Your task to perform on an android device: Show me the alarms in the clock app Image 0: 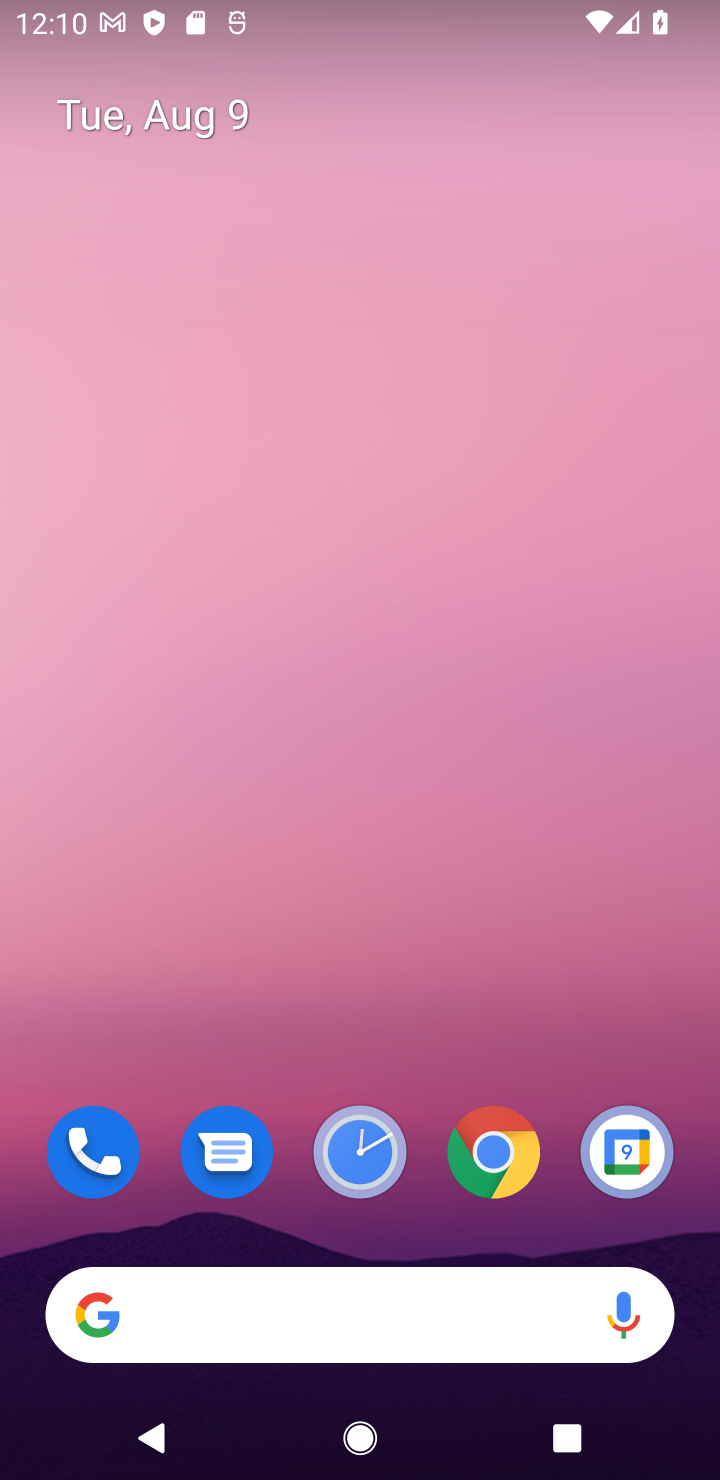
Step 0: click (375, 1136)
Your task to perform on an android device: Show me the alarms in the clock app Image 1: 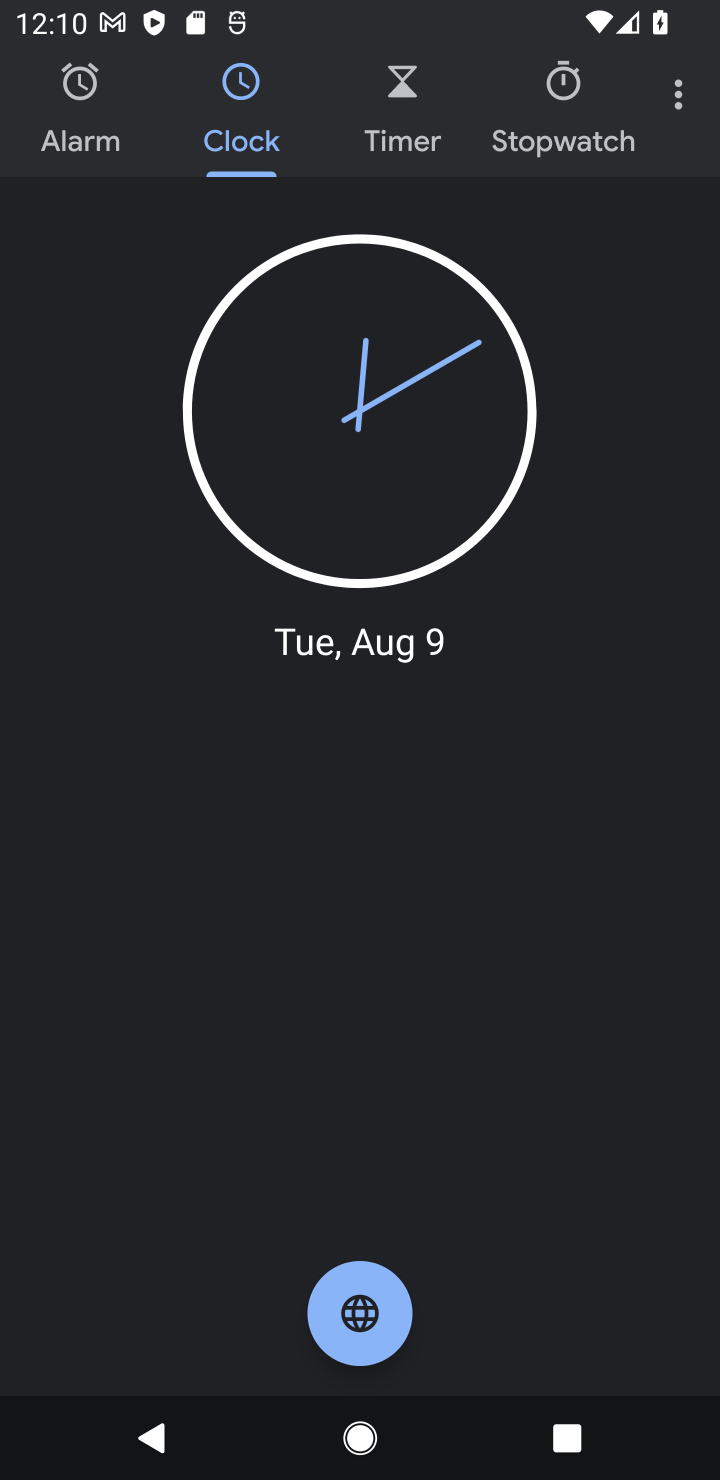
Step 1: click (51, 130)
Your task to perform on an android device: Show me the alarms in the clock app Image 2: 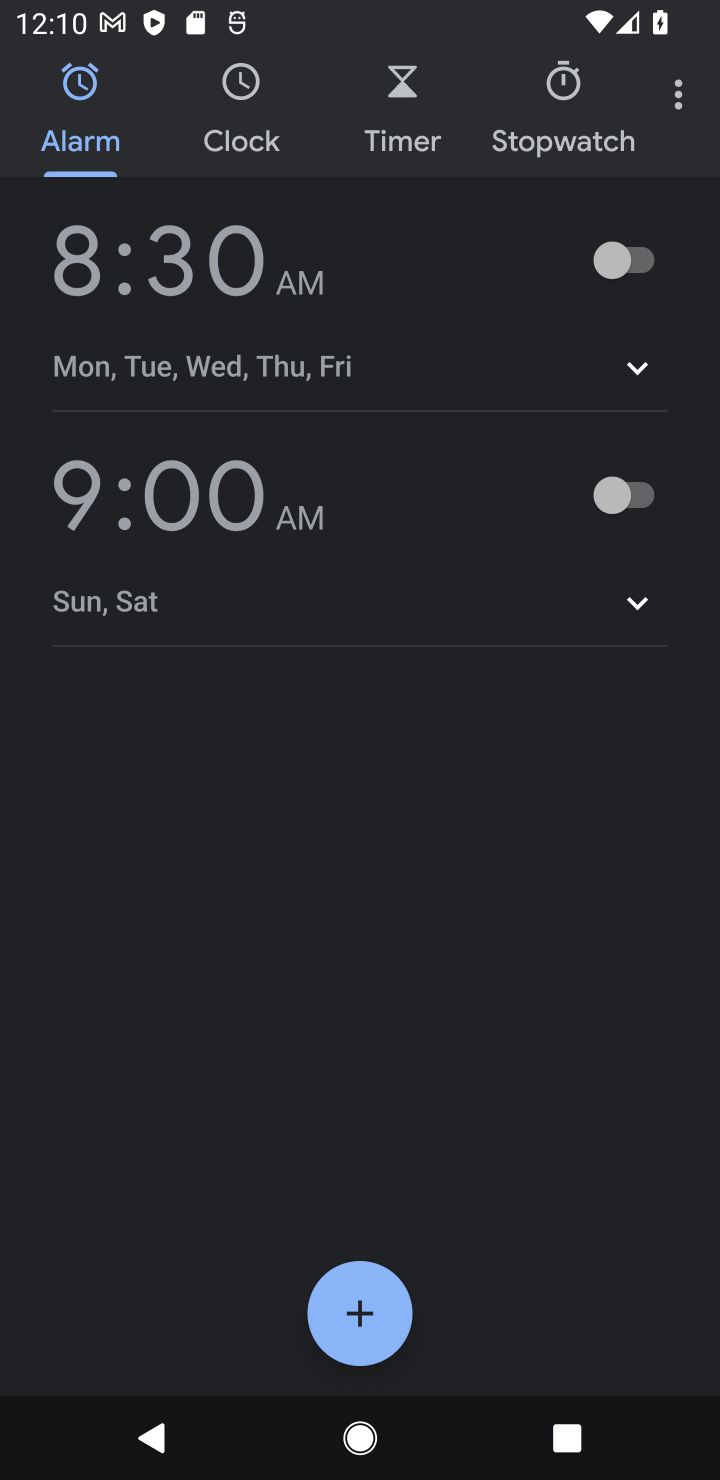
Step 2: task complete